Your task to perform on an android device: Open privacy settings Image 0: 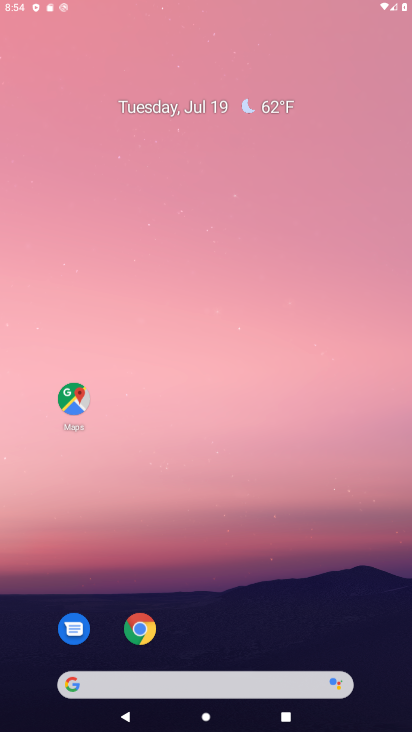
Step 0: press home button
Your task to perform on an android device: Open privacy settings Image 1: 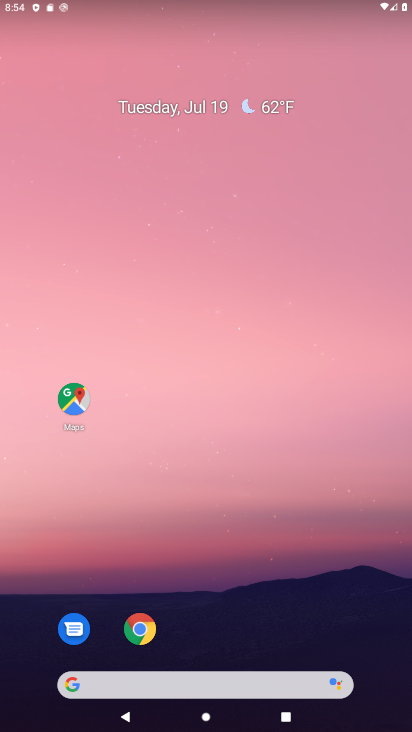
Step 1: drag from (203, 656) to (241, 0)
Your task to perform on an android device: Open privacy settings Image 2: 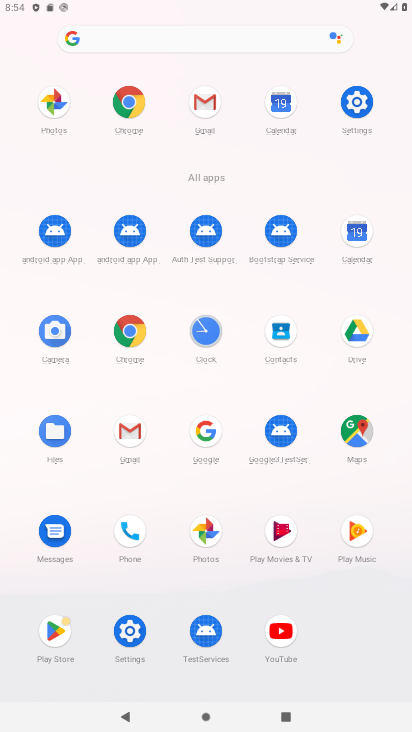
Step 2: click (356, 94)
Your task to perform on an android device: Open privacy settings Image 3: 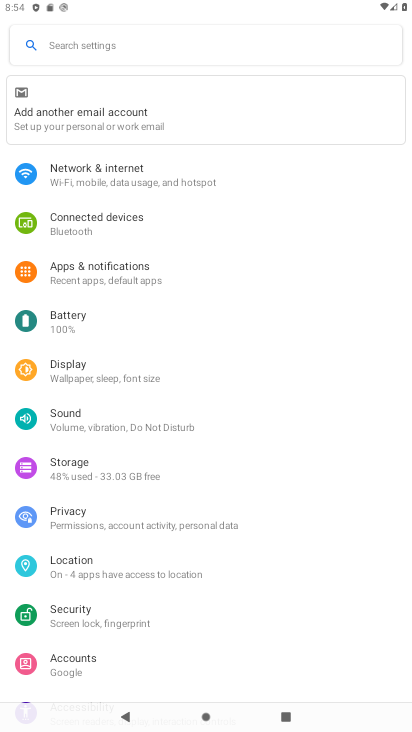
Step 3: click (96, 510)
Your task to perform on an android device: Open privacy settings Image 4: 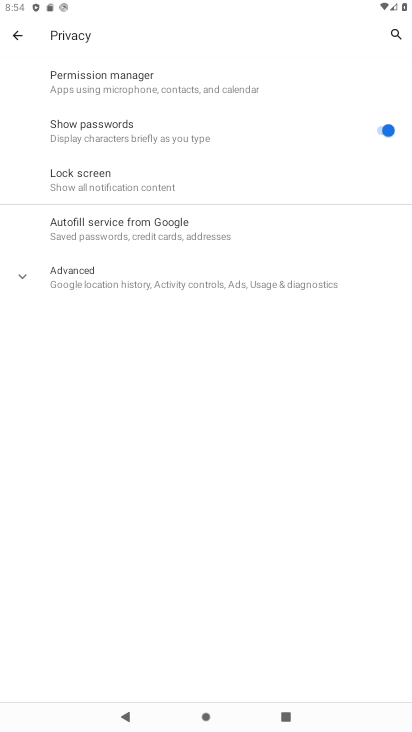
Step 4: click (25, 275)
Your task to perform on an android device: Open privacy settings Image 5: 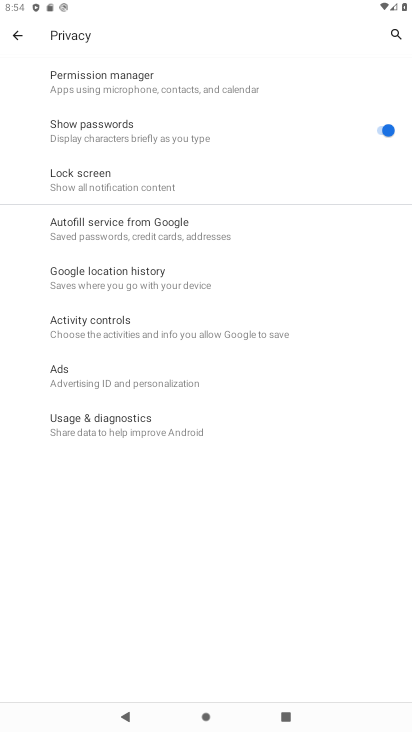
Step 5: task complete